Your task to perform on an android device: see tabs open on other devices in the chrome app Image 0: 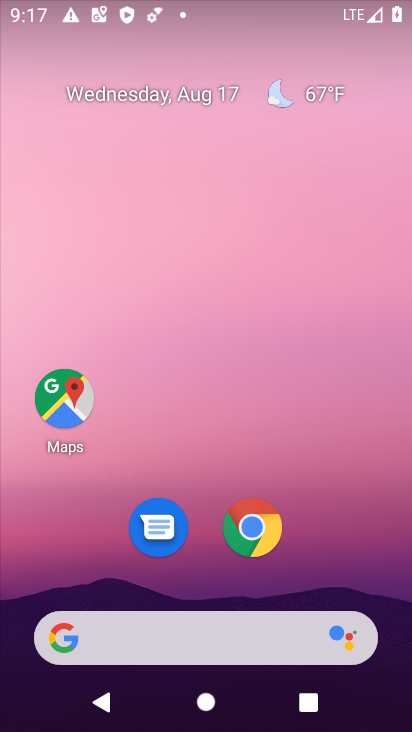
Step 0: click (250, 527)
Your task to perform on an android device: see tabs open on other devices in the chrome app Image 1: 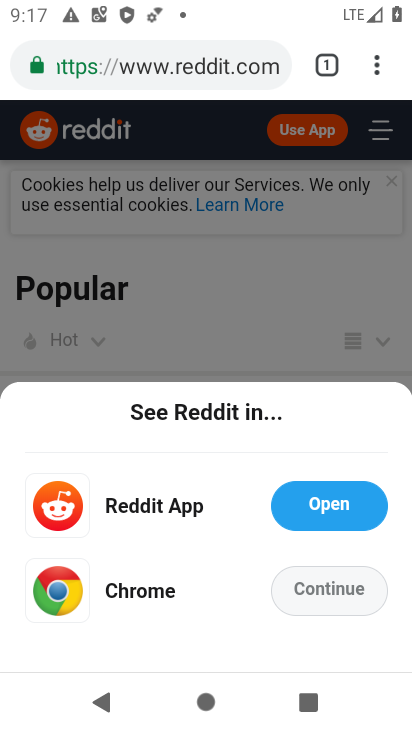
Step 1: click (381, 68)
Your task to perform on an android device: see tabs open on other devices in the chrome app Image 2: 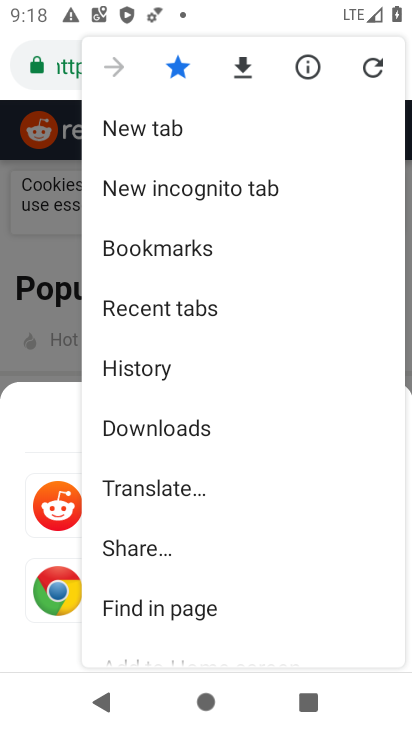
Step 2: click (216, 305)
Your task to perform on an android device: see tabs open on other devices in the chrome app Image 3: 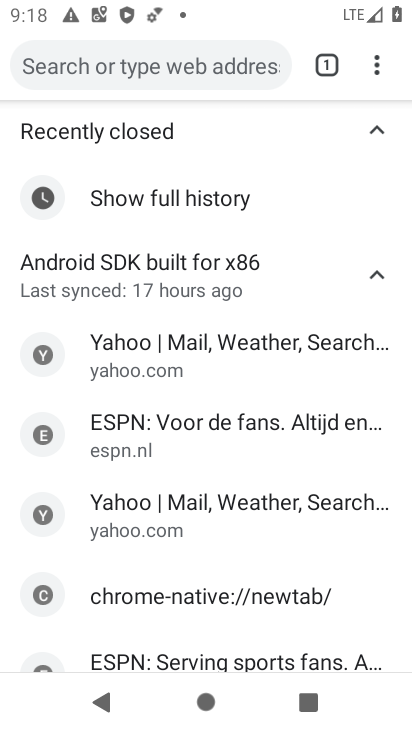
Step 3: task complete